Your task to perform on an android device: turn smart compose on in the gmail app Image 0: 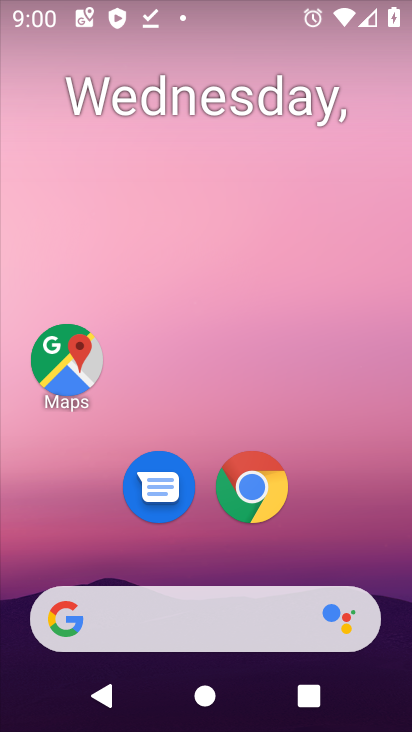
Step 0: drag from (219, 458) to (146, 122)
Your task to perform on an android device: turn smart compose on in the gmail app Image 1: 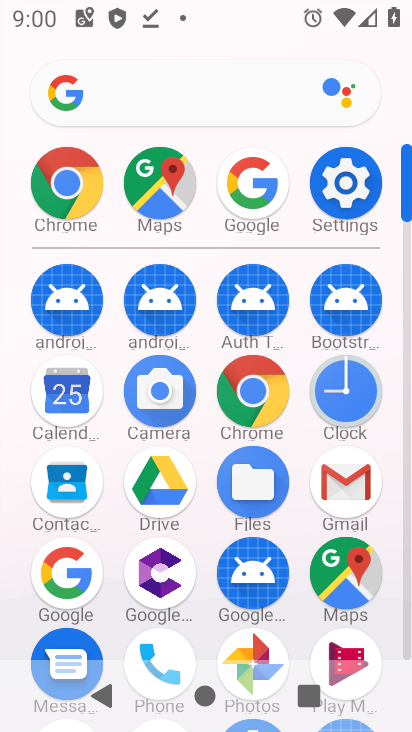
Step 1: click (351, 473)
Your task to perform on an android device: turn smart compose on in the gmail app Image 2: 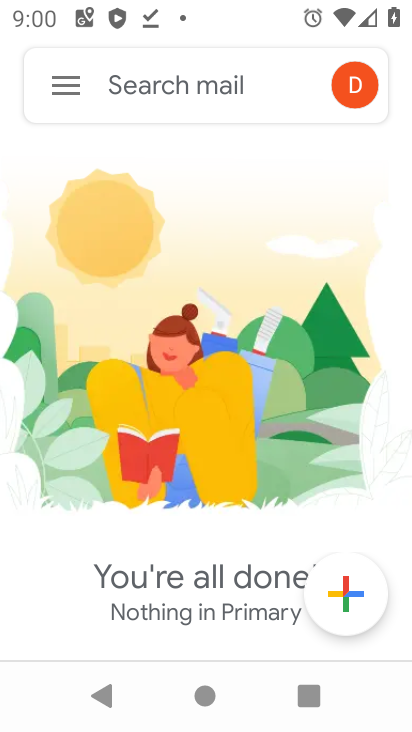
Step 2: click (63, 86)
Your task to perform on an android device: turn smart compose on in the gmail app Image 3: 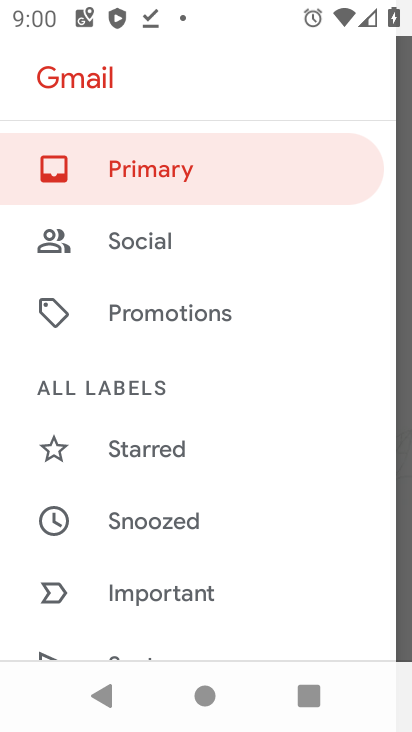
Step 3: drag from (187, 453) to (142, 176)
Your task to perform on an android device: turn smart compose on in the gmail app Image 4: 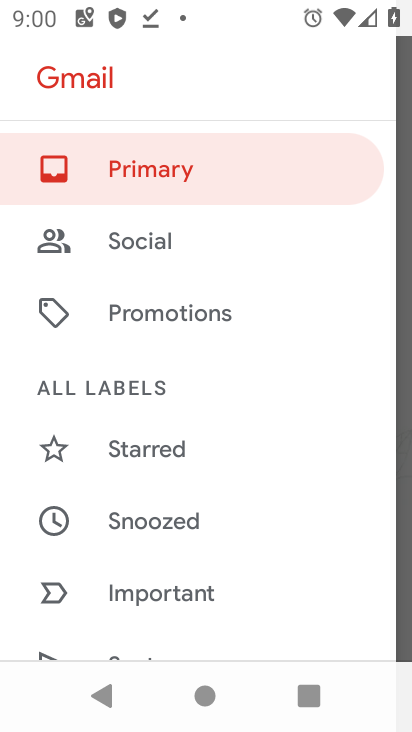
Step 4: click (194, 69)
Your task to perform on an android device: turn smart compose on in the gmail app Image 5: 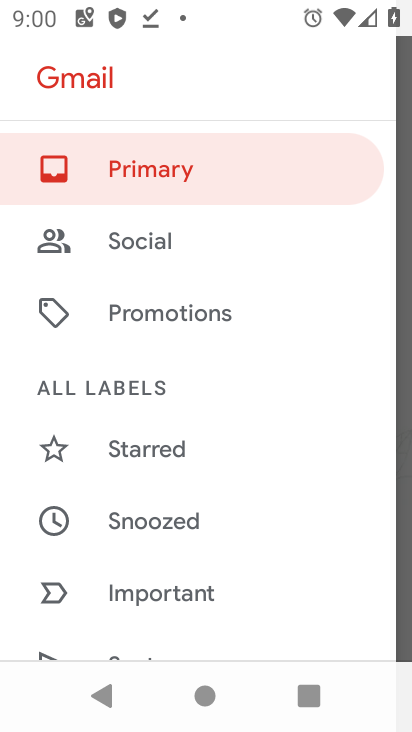
Step 5: click (215, 151)
Your task to perform on an android device: turn smart compose on in the gmail app Image 6: 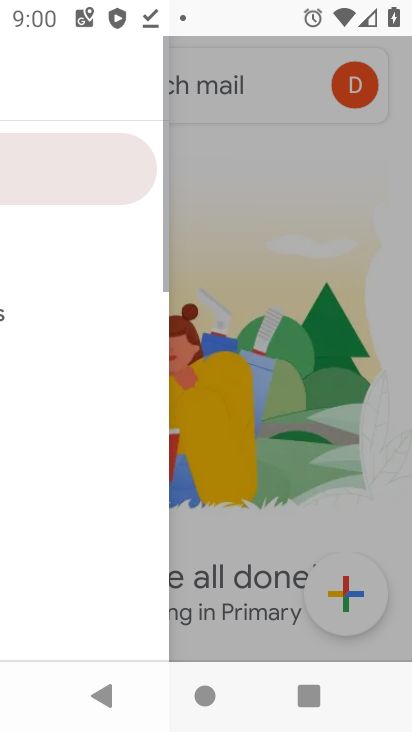
Step 6: drag from (211, 517) to (190, 105)
Your task to perform on an android device: turn smart compose on in the gmail app Image 7: 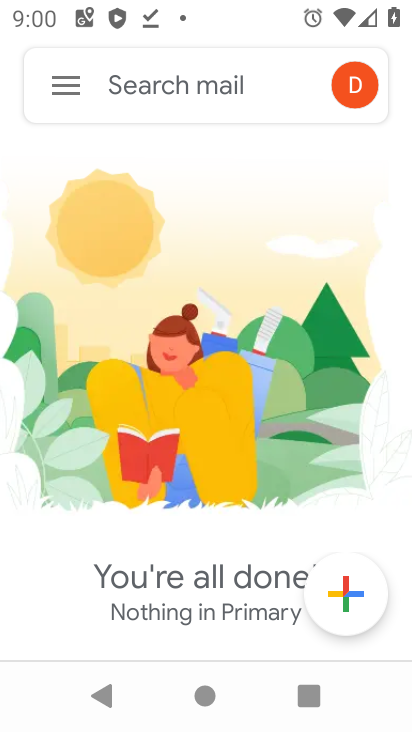
Step 7: drag from (205, 462) to (198, 155)
Your task to perform on an android device: turn smart compose on in the gmail app Image 8: 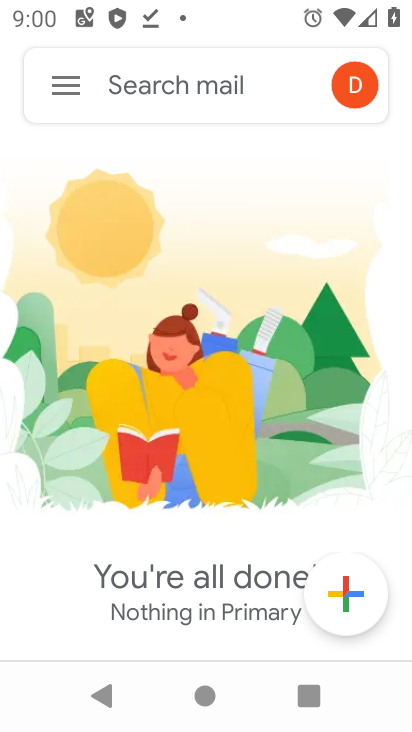
Step 8: click (57, 95)
Your task to perform on an android device: turn smart compose on in the gmail app Image 9: 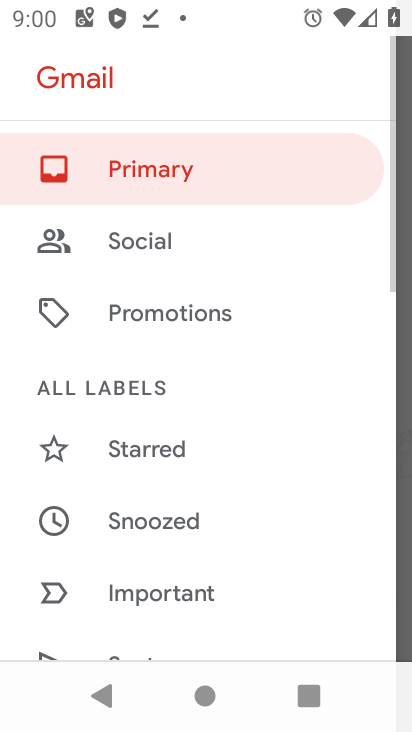
Step 9: drag from (180, 341) to (161, 108)
Your task to perform on an android device: turn smart compose on in the gmail app Image 10: 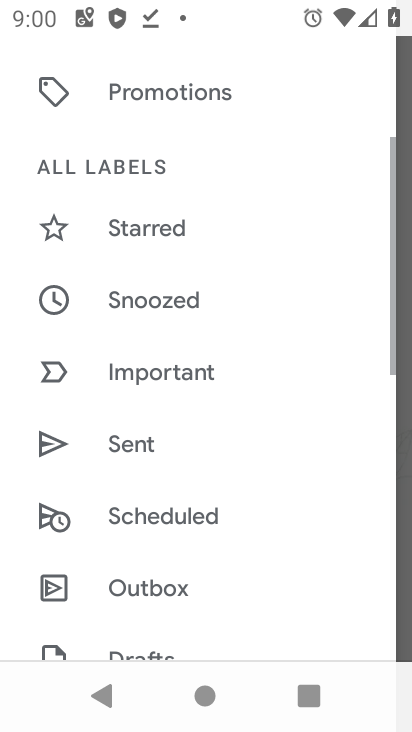
Step 10: drag from (191, 411) to (190, 133)
Your task to perform on an android device: turn smart compose on in the gmail app Image 11: 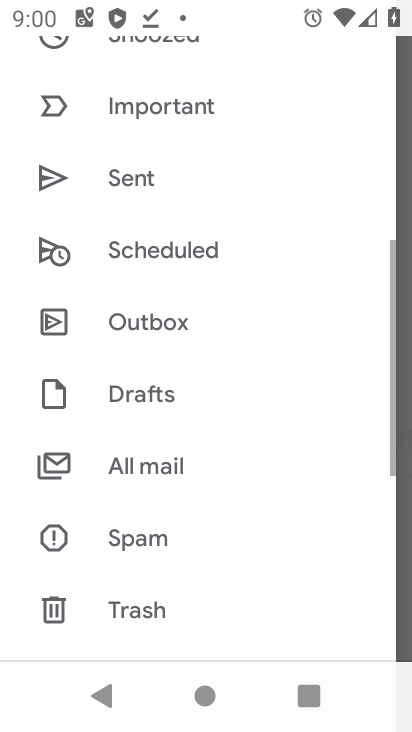
Step 11: drag from (177, 422) to (174, 155)
Your task to perform on an android device: turn smart compose on in the gmail app Image 12: 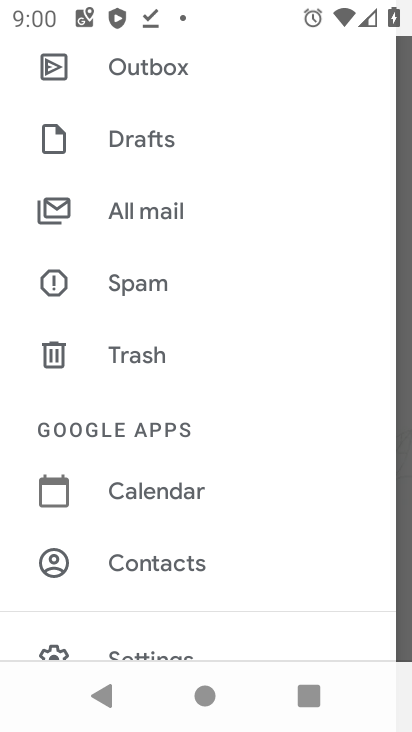
Step 12: click (205, 87)
Your task to perform on an android device: turn smart compose on in the gmail app Image 13: 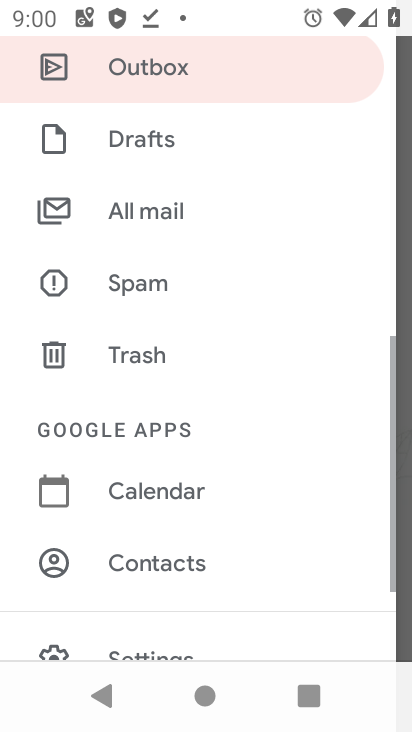
Step 13: drag from (303, 451) to (242, 46)
Your task to perform on an android device: turn smart compose on in the gmail app Image 14: 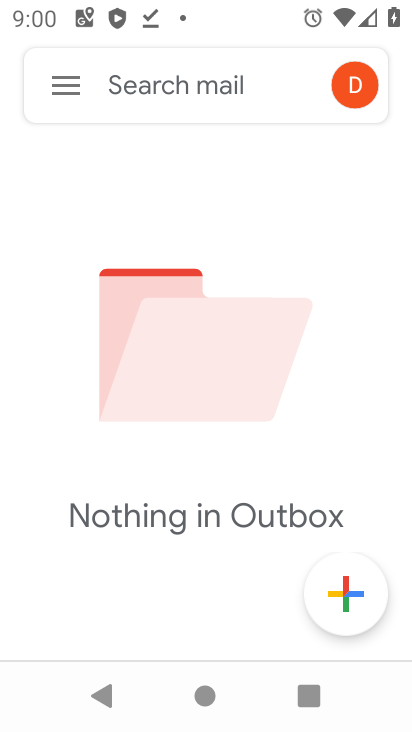
Step 14: click (56, 92)
Your task to perform on an android device: turn smart compose on in the gmail app Image 15: 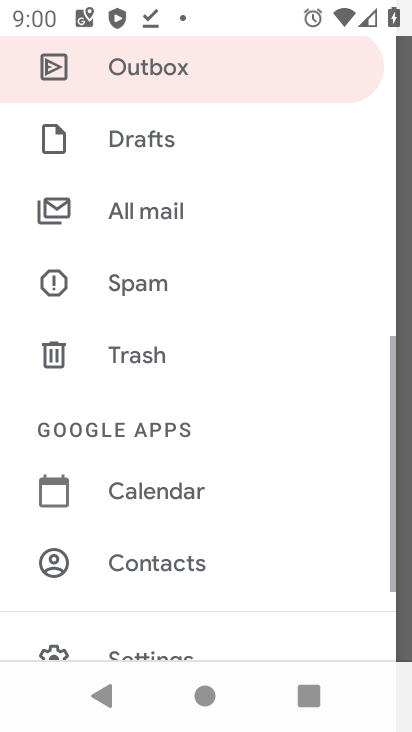
Step 15: drag from (118, 594) to (79, 263)
Your task to perform on an android device: turn smart compose on in the gmail app Image 16: 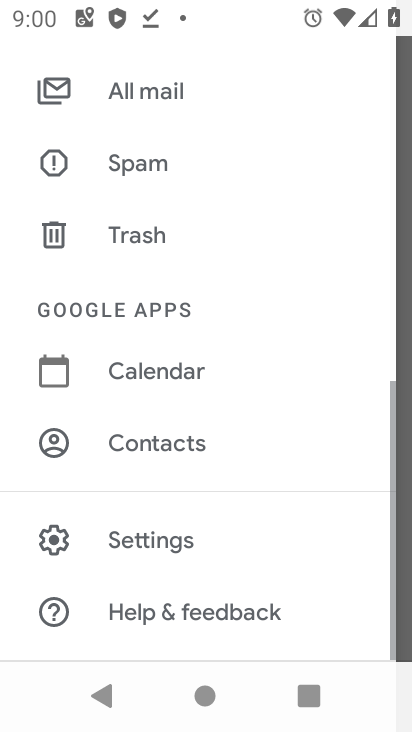
Step 16: click (175, 353)
Your task to perform on an android device: turn smart compose on in the gmail app Image 17: 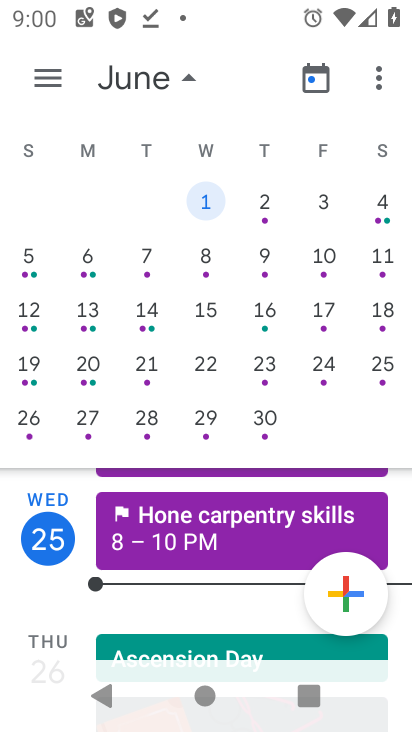
Step 17: click (58, 65)
Your task to perform on an android device: turn smart compose on in the gmail app Image 18: 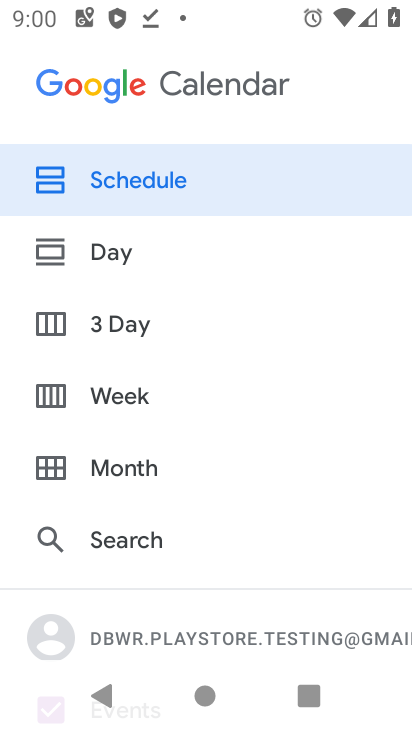
Step 18: drag from (163, 241) to (143, 172)
Your task to perform on an android device: turn smart compose on in the gmail app Image 19: 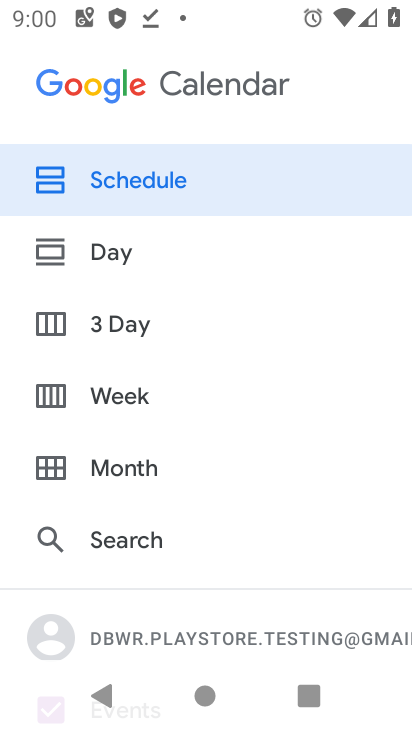
Step 19: drag from (182, 485) to (149, 10)
Your task to perform on an android device: turn smart compose on in the gmail app Image 20: 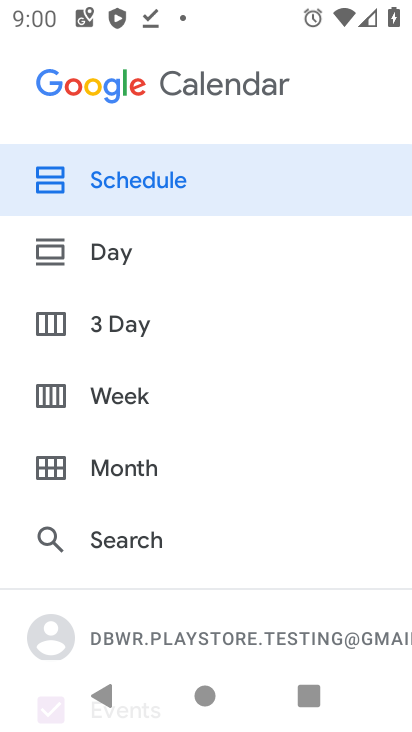
Step 20: press back button
Your task to perform on an android device: turn smart compose on in the gmail app Image 21: 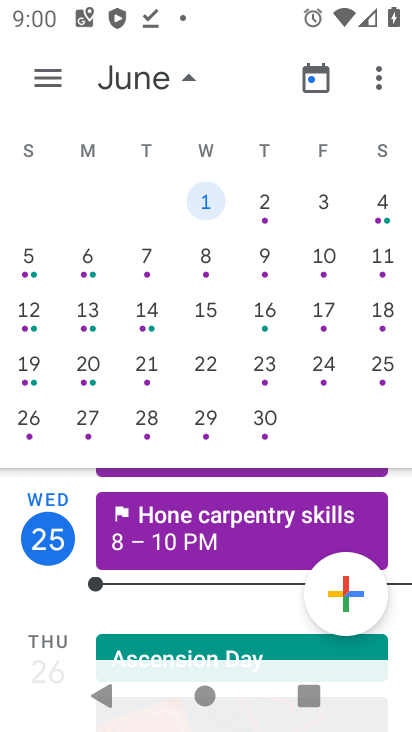
Step 21: press home button
Your task to perform on an android device: turn smart compose on in the gmail app Image 22: 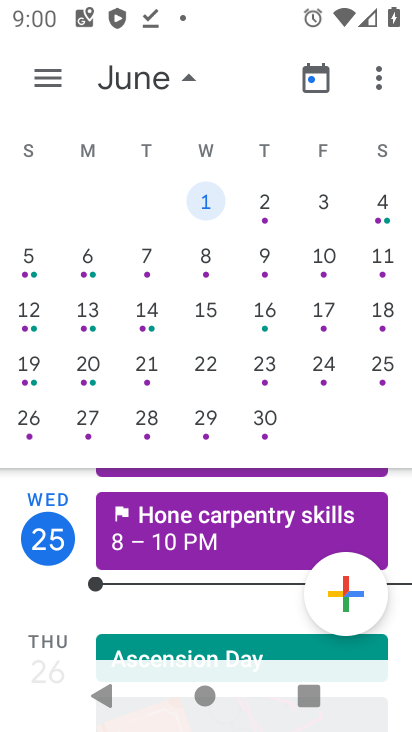
Step 22: press home button
Your task to perform on an android device: turn smart compose on in the gmail app Image 23: 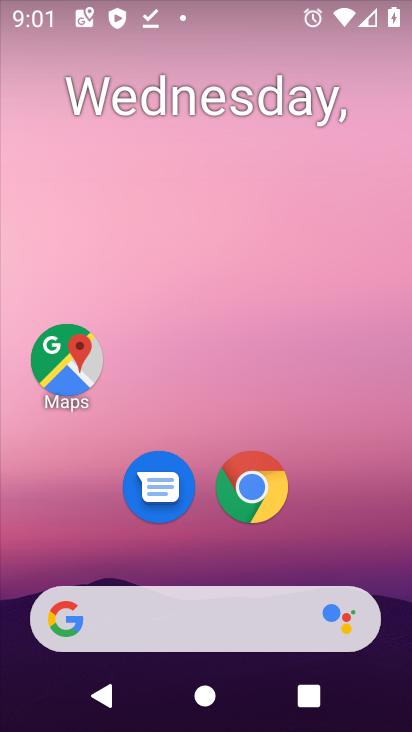
Step 23: drag from (250, 637) to (225, 85)
Your task to perform on an android device: turn smart compose on in the gmail app Image 24: 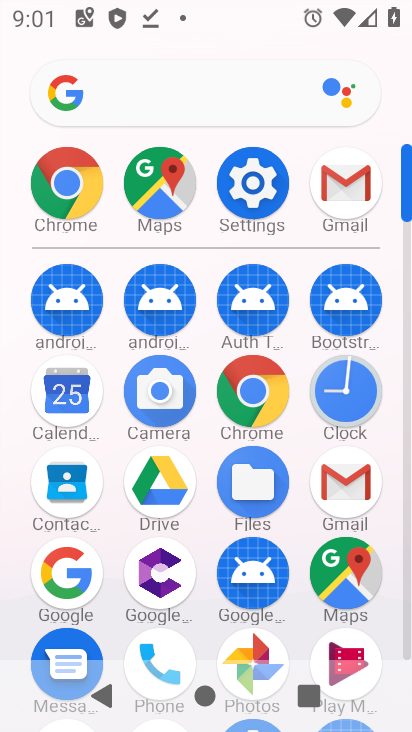
Step 24: click (347, 477)
Your task to perform on an android device: turn smart compose on in the gmail app Image 25: 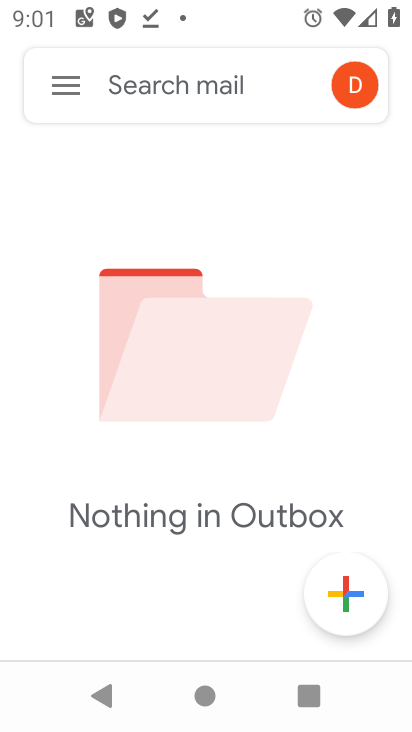
Step 25: click (58, 90)
Your task to perform on an android device: turn smart compose on in the gmail app Image 26: 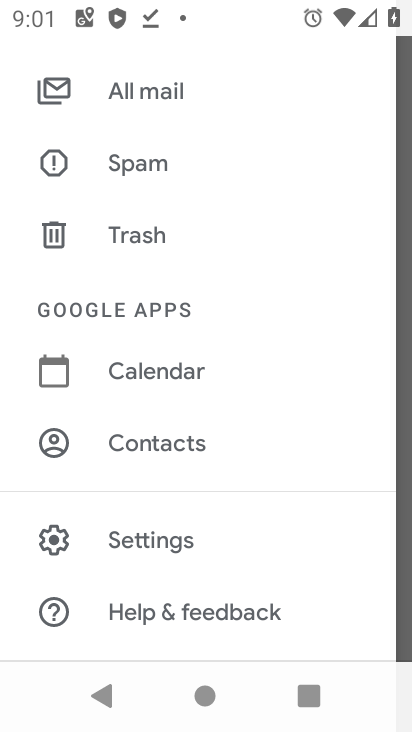
Step 26: click (137, 509)
Your task to perform on an android device: turn smart compose on in the gmail app Image 27: 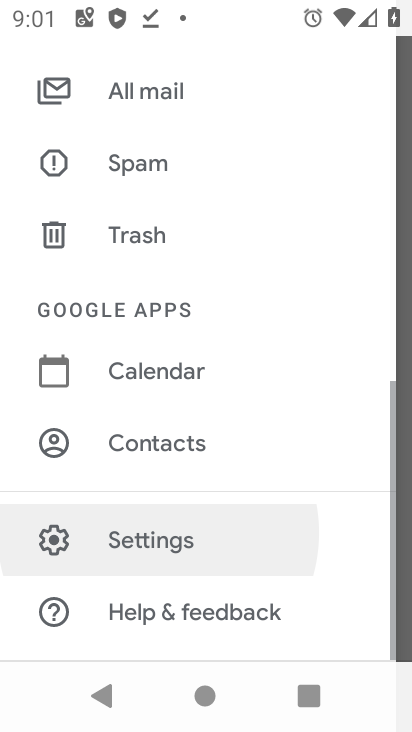
Step 27: click (144, 547)
Your task to perform on an android device: turn smart compose on in the gmail app Image 28: 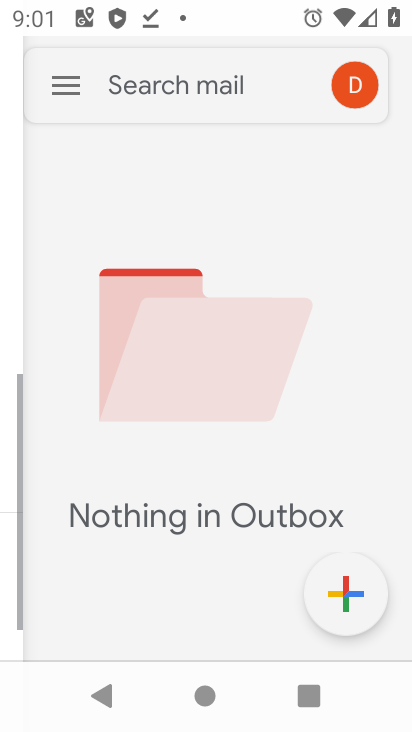
Step 28: click (151, 542)
Your task to perform on an android device: turn smart compose on in the gmail app Image 29: 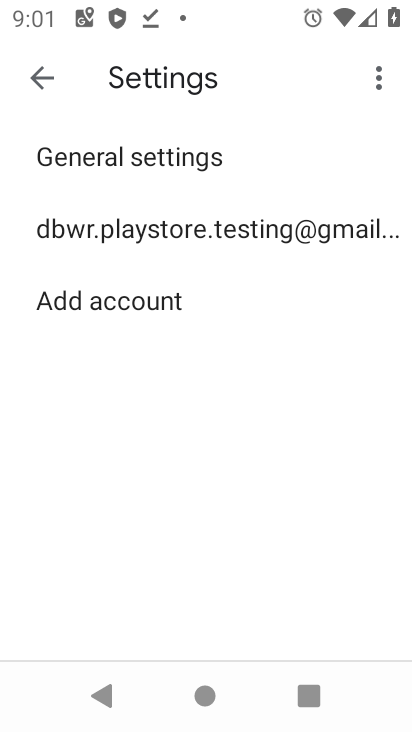
Step 29: click (153, 229)
Your task to perform on an android device: turn smart compose on in the gmail app Image 30: 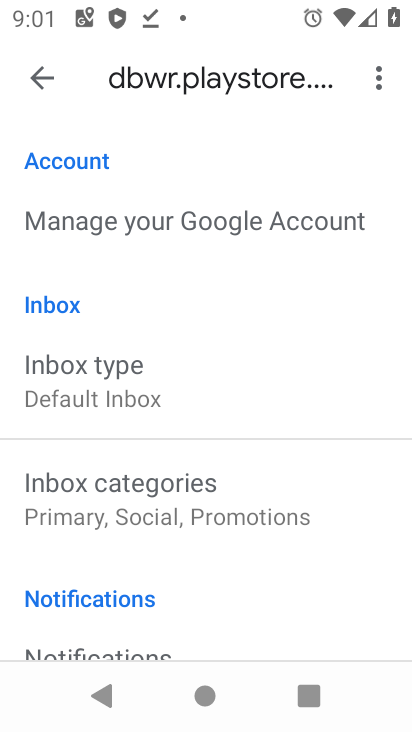
Step 30: drag from (193, 517) to (174, 307)
Your task to perform on an android device: turn smart compose on in the gmail app Image 31: 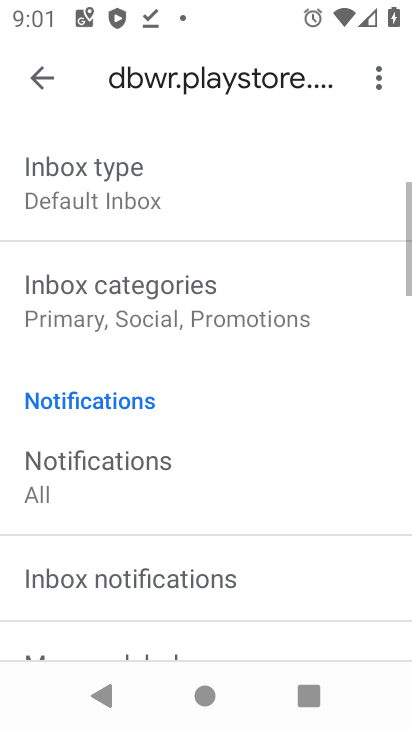
Step 31: drag from (185, 387) to (160, 10)
Your task to perform on an android device: turn smart compose on in the gmail app Image 32: 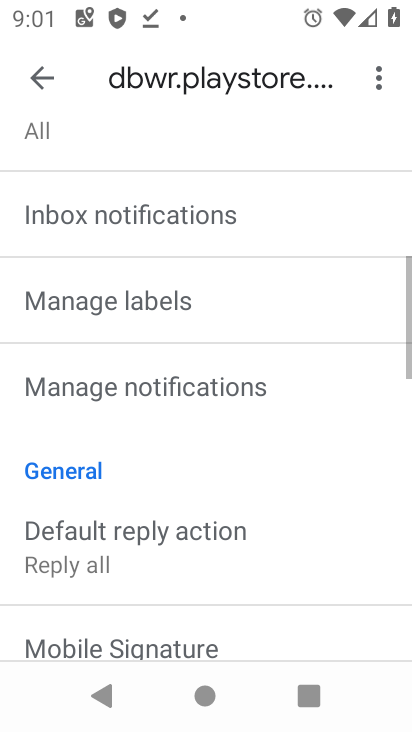
Step 32: drag from (199, 410) to (176, 166)
Your task to perform on an android device: turn smart compose on in the gmail app Image 33: 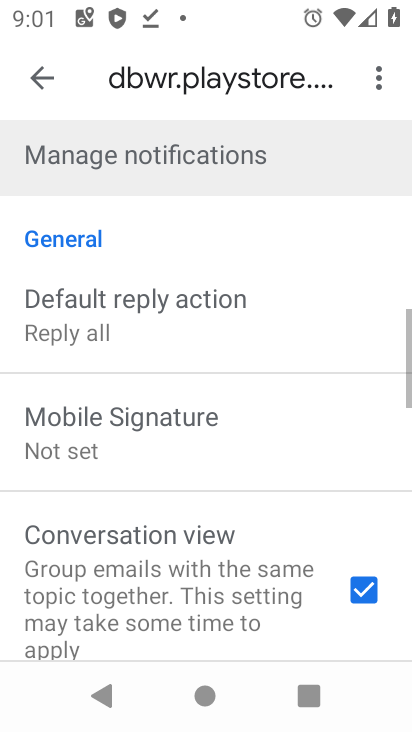
Step 33: drag from (193, 469) to (186, 262)
Your task to perform on an android device: turn smart compose on in the gmail app Image 34: 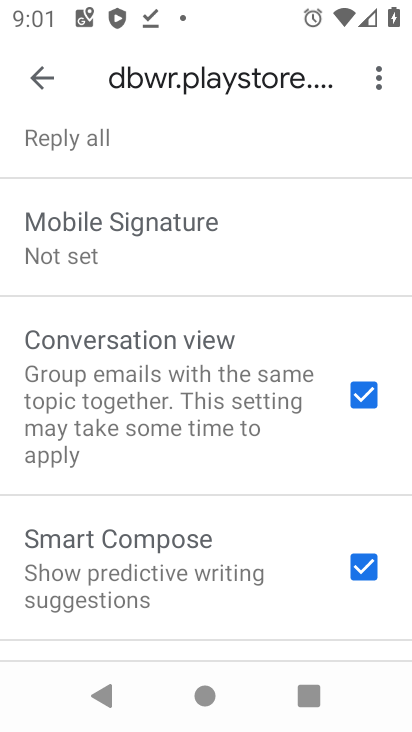
Step 34: click (373, 571)
Your task to perform on an android device: turn smart compose on in the gmail app Image 35: 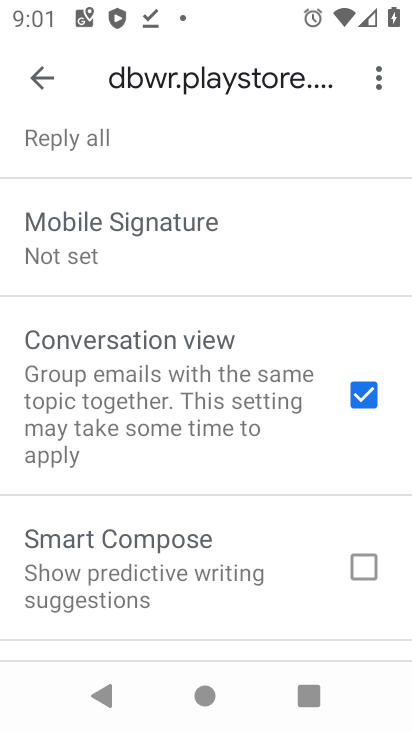
Step 35: click (372, 557)
Your task to perform on an android device: turn smart compose on in the gmail app Image 36: 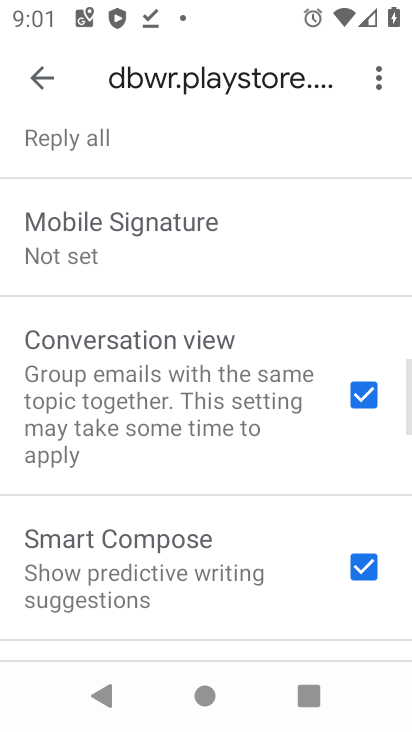
Step 36: task complete